Your task to perform on an android device: Go to Yahoo.com Image 0: 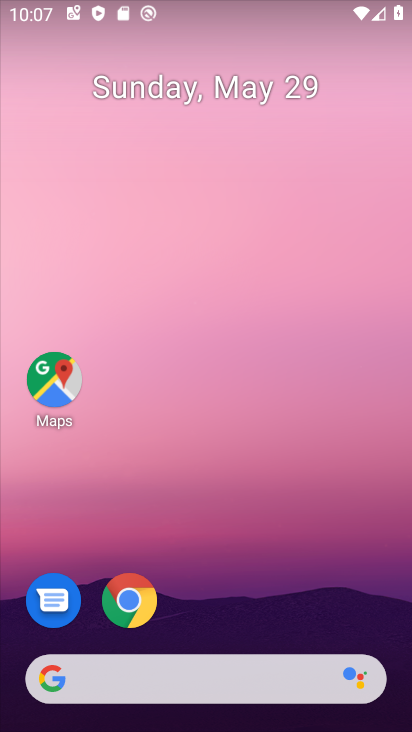
Step 0: click (129, 599)
Your task to perform on an android device: Go to Yahoo.com Image 1: 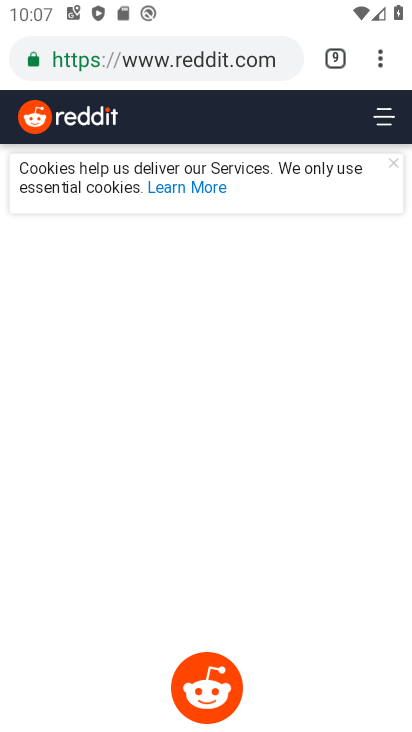
Step 1: click (382, 63)
Your task to perform on an android device: Go to Yahoo.com Image 2: 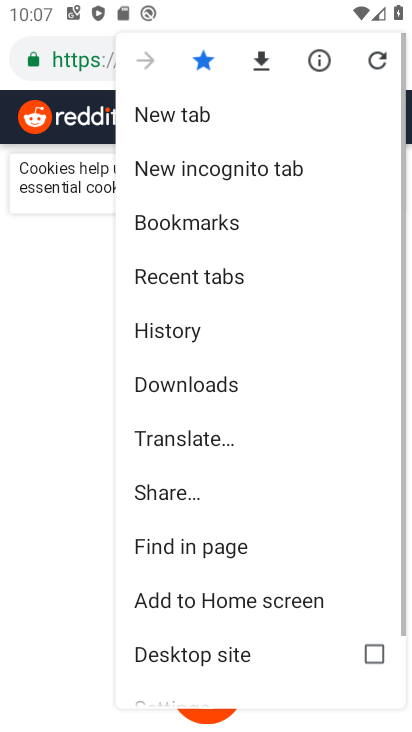
Step 2: click (199, 109)
Your task to perform on an android device: Go to Yahoo.com Image 3: 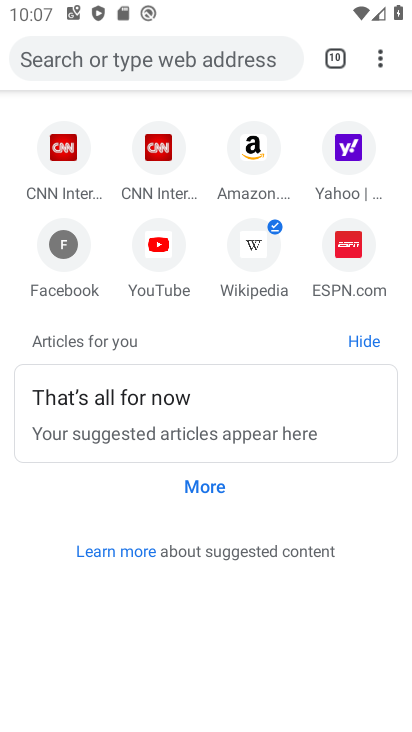
Step 3: click (342, 160)
Your task to perform on an android device: Go to Yahoo.com Image 4: 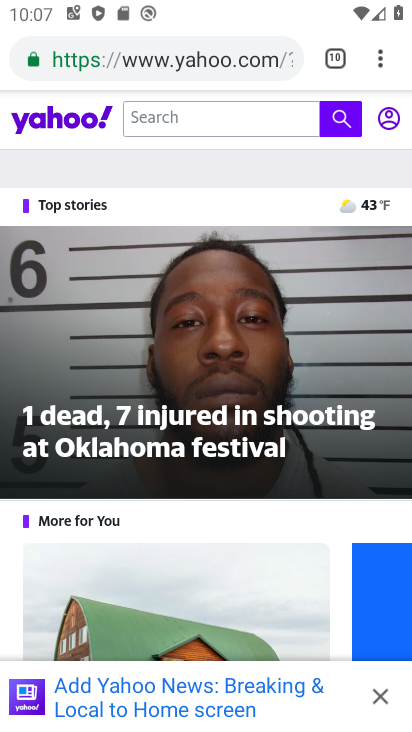
Step 4: task complete